Your task to perform on an android device: choose inbox layout in the gmail app Image 0: 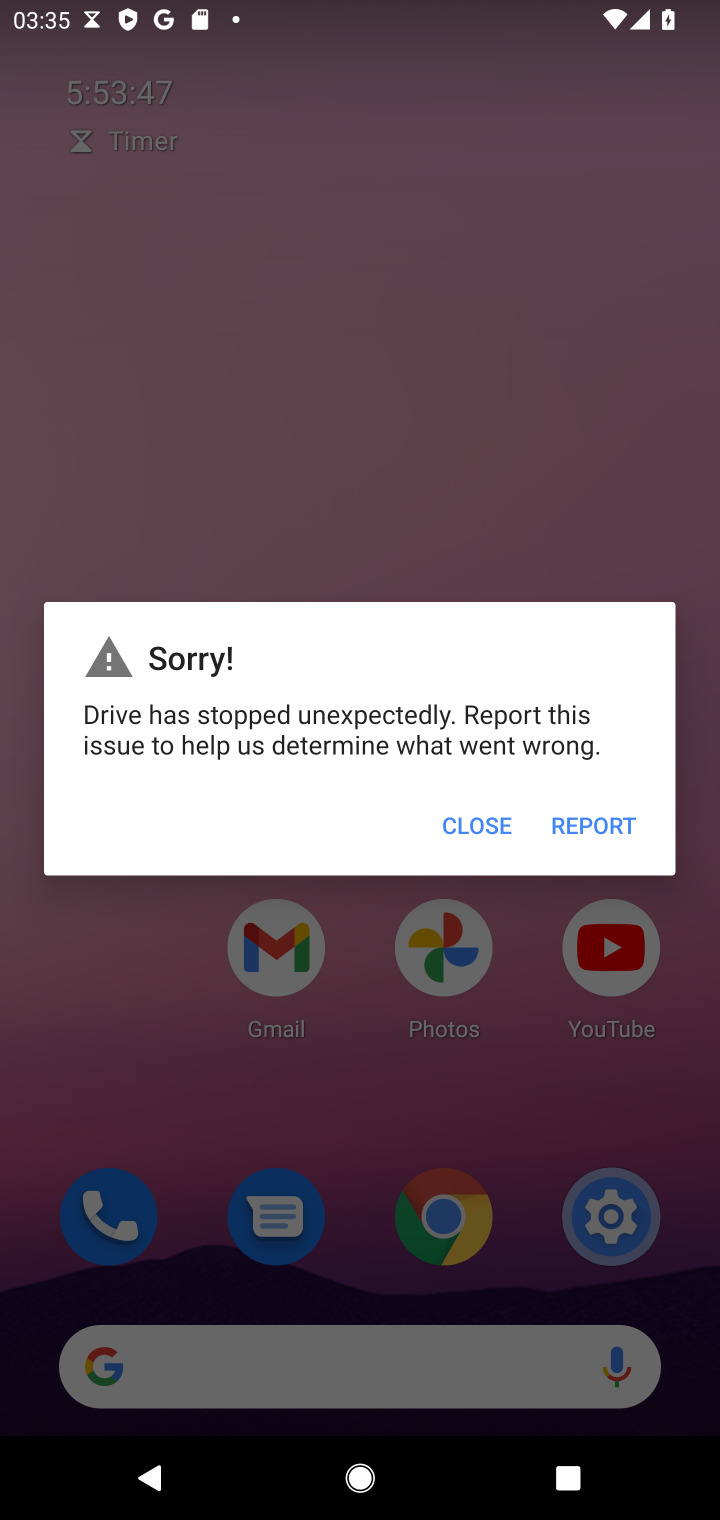
Step 0: press home button
Your task to perform on an android device: choose inbox layout in the gmail app Image 1: 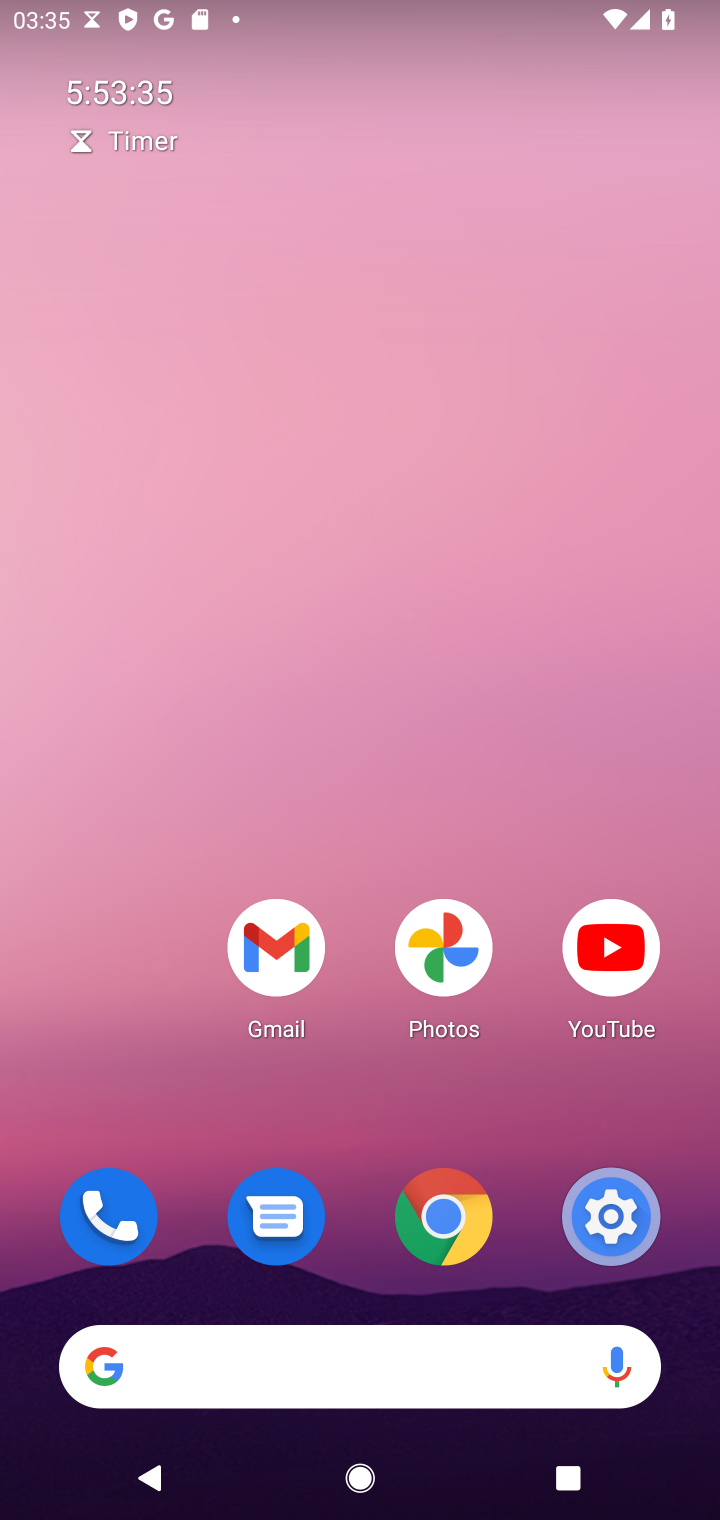
Step 1: click (280, 963)
Your task to perform on an android device: choose inbox layout in the gmail app Image 2: 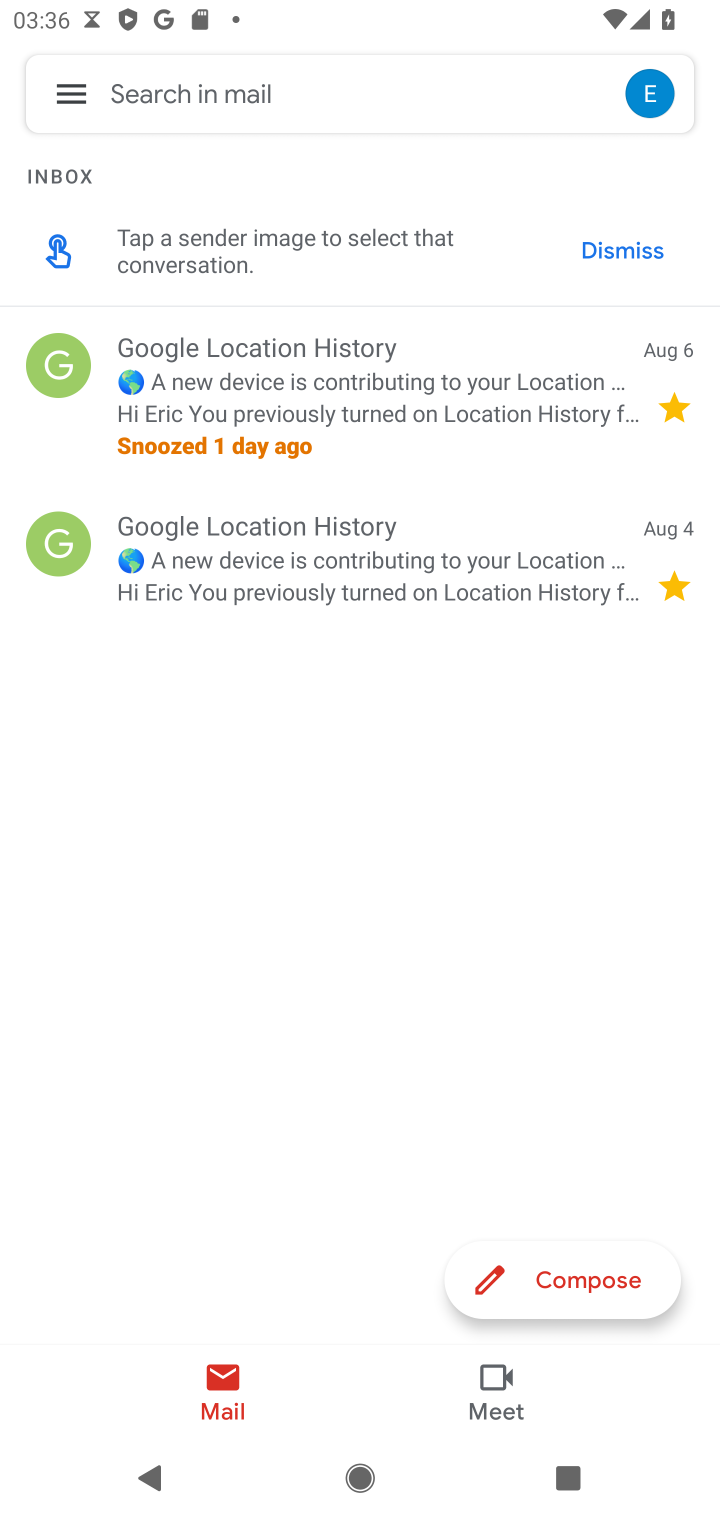
Step 2: click (68, 76)
Your task to perform on an android device: choose inbox layout in the gmail app Image 3: 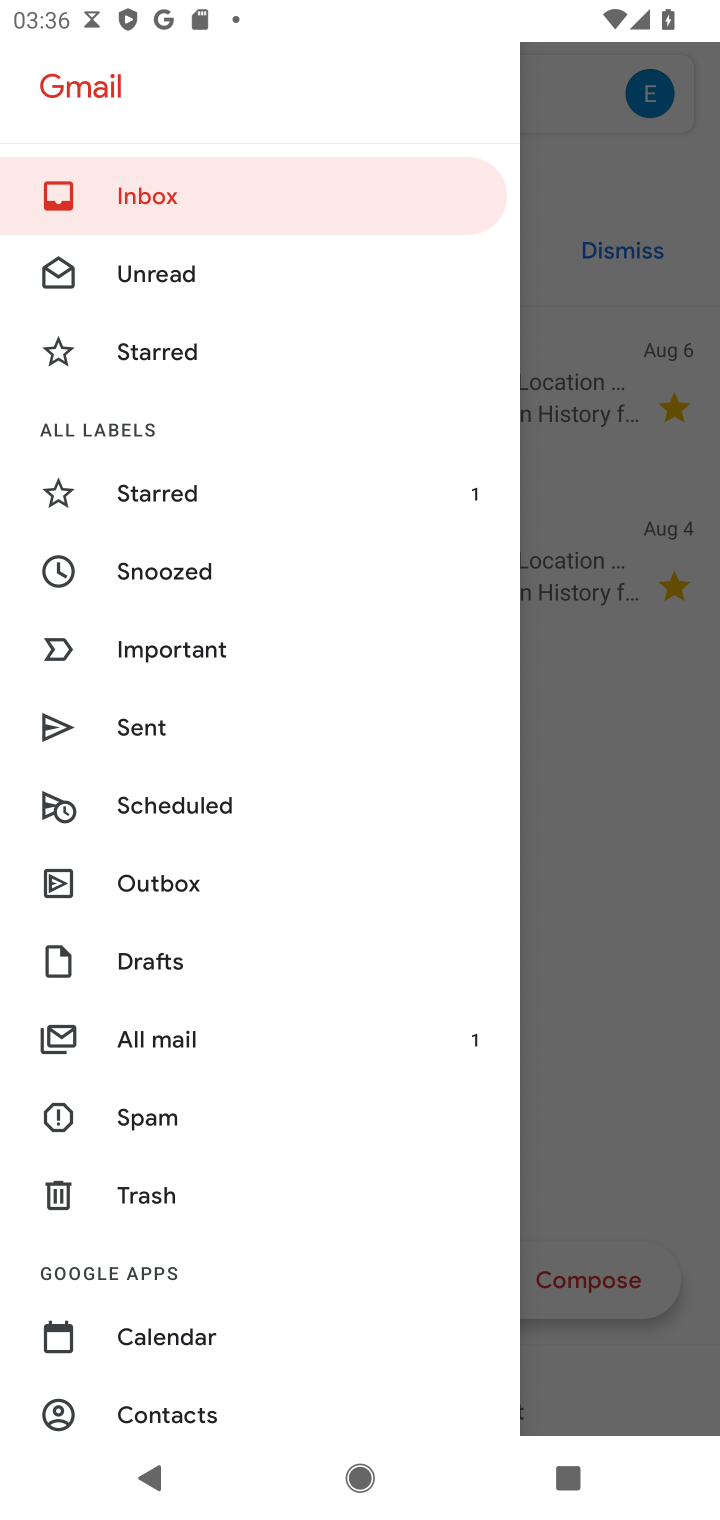
Step 3: drag from (189, 1197) to (185, 427)
Your task to perform on an android device: choose inbox layout in the gmail app Image 4: 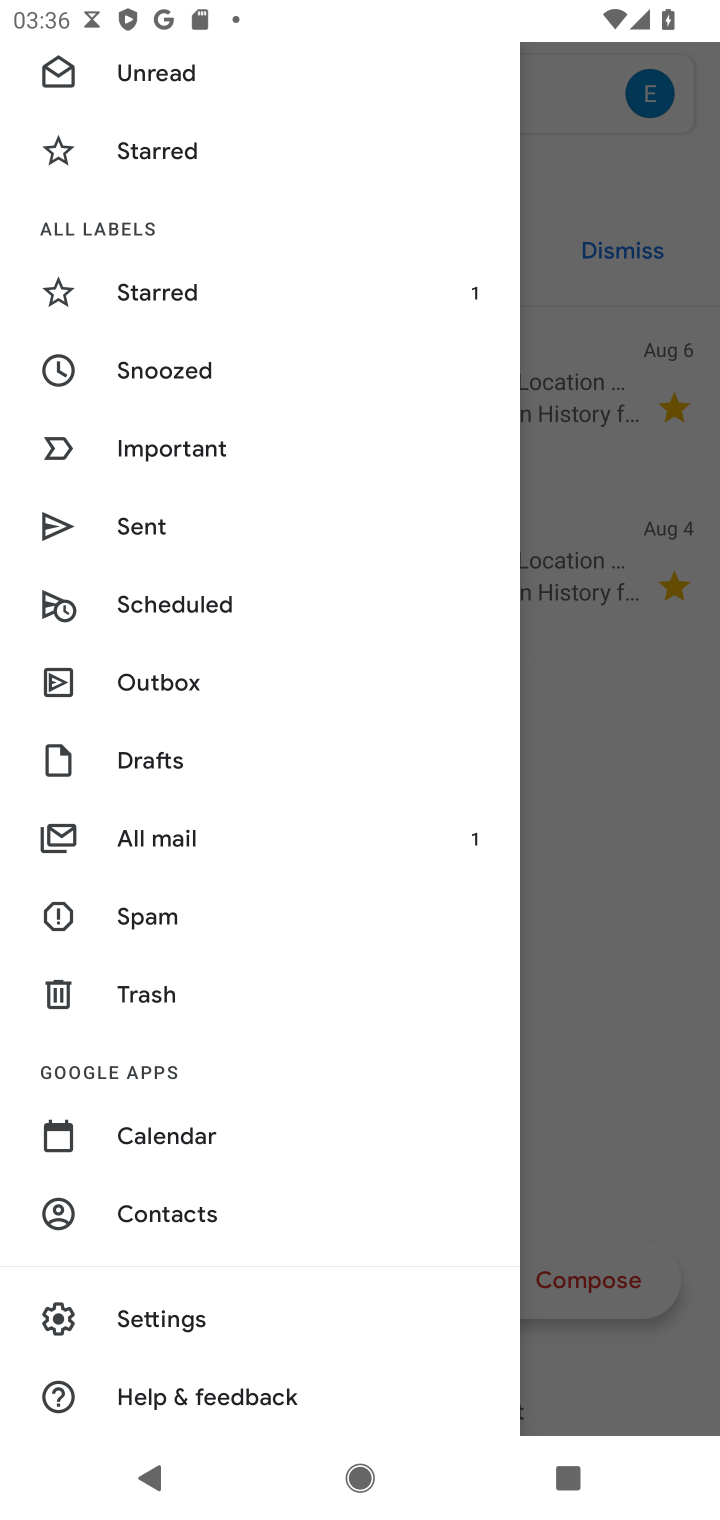
Step 4: click (184, 1329)
Your task to perform on an android device: choose inbox layout in the gmail app Image 5: 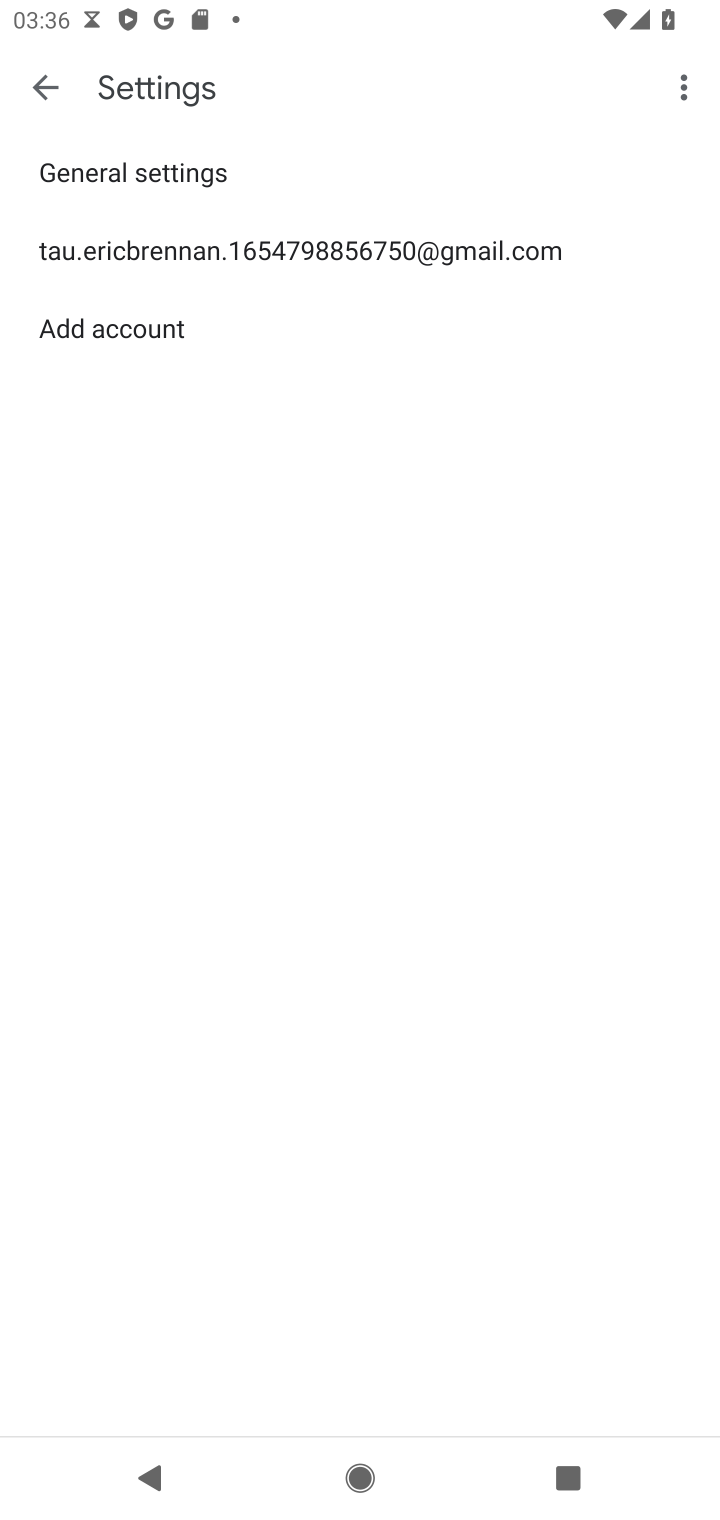
Step 5: click (373, 251)
Your task to perform on an android device: choose inbox layout in the gmail app Image 6: 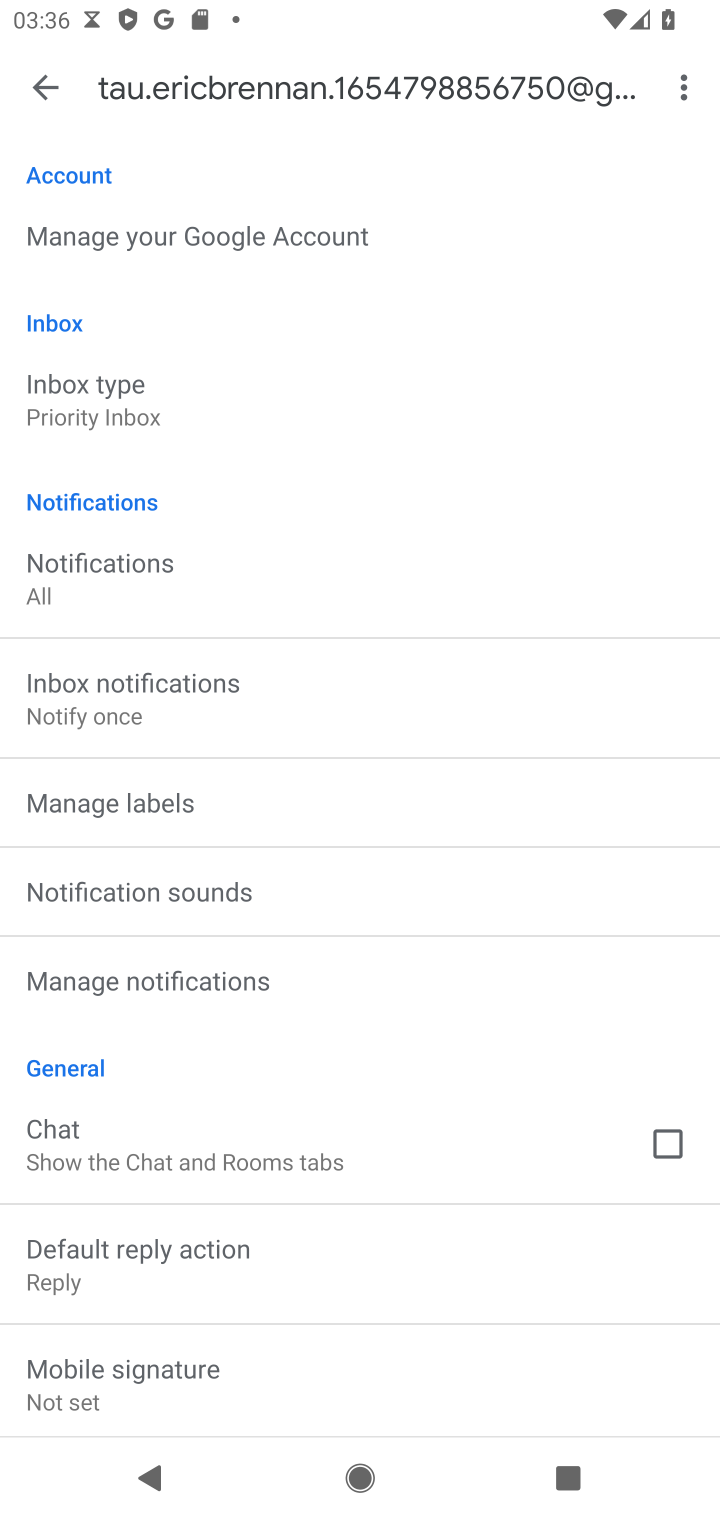
Step 6: click (58, 418)
Your task to perform on an android device: choose inbox layout in the gmail app Image 7: 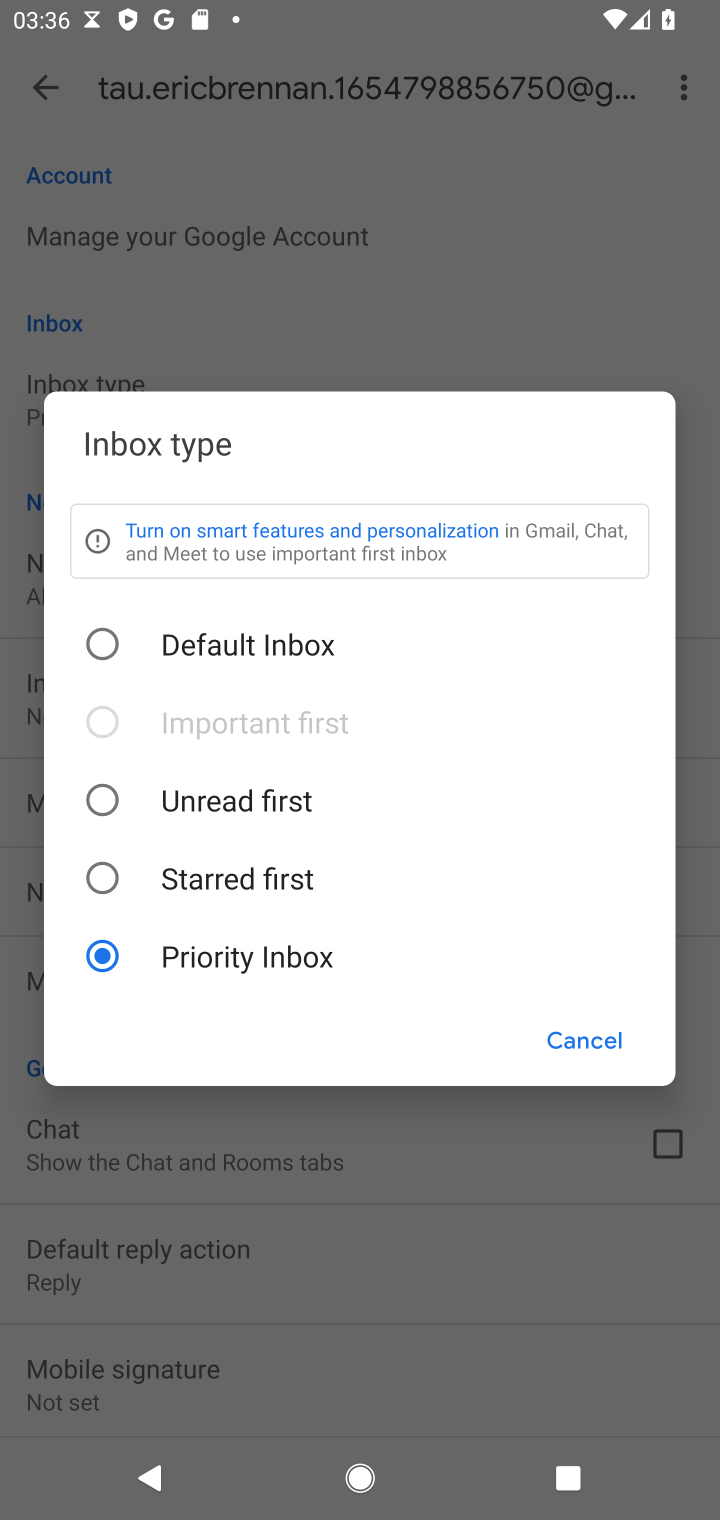
Step 7: click (218, 651)
Your task to perform on an android device: choose inbox layout in the gmail app Image 8: 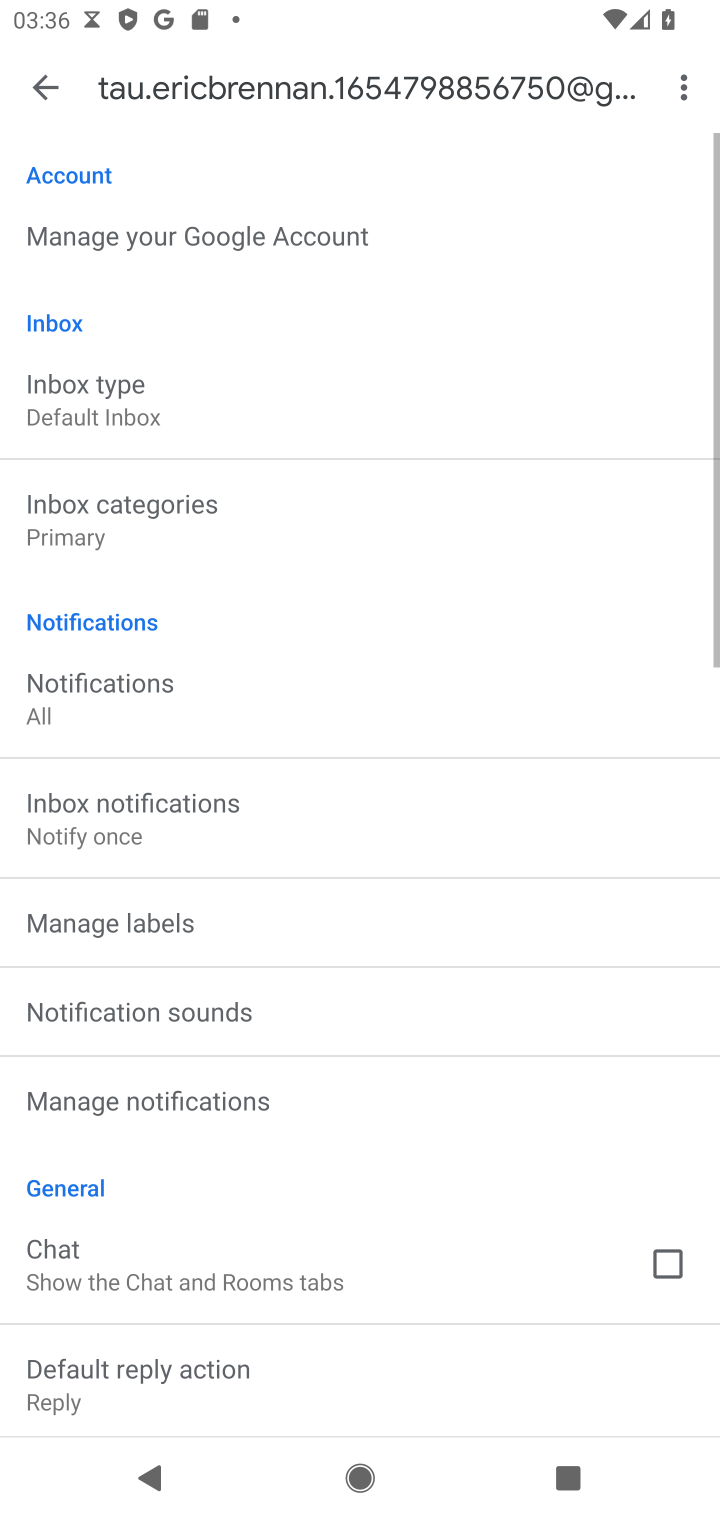
Step 8: task complete